Your task to perform on an android device: Open Reddit.com Image 0: 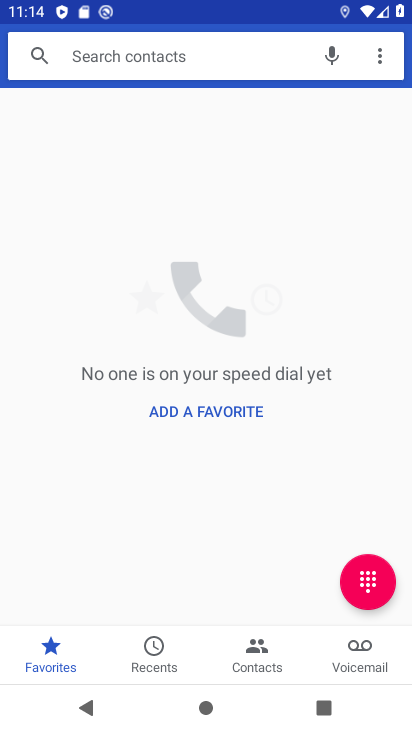
Step 0: press home button
Your task to perform on an android device: Open Reddit.com Image 1: 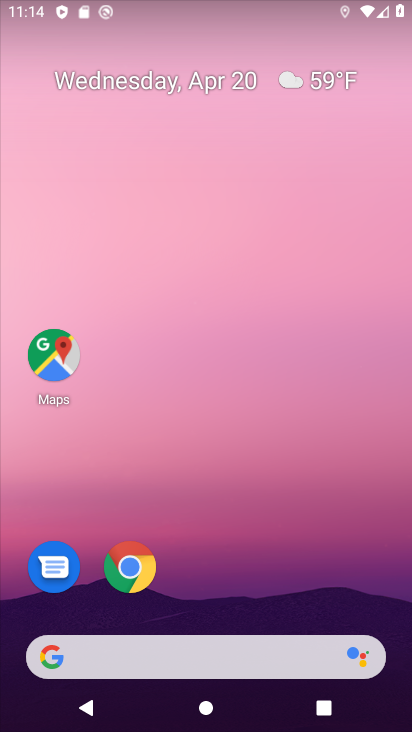
Step 1: click (136, 565)
Your task to perform on an android device: Open Reddit.com Image 2: 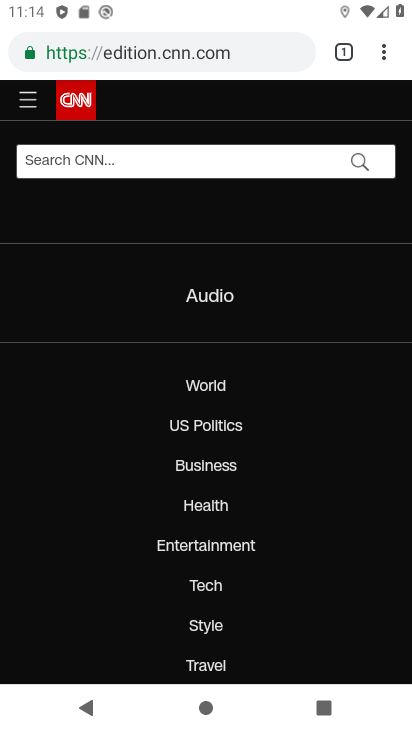
Step 2: click (212, 51)
Your task to perform on an android device: Open Reddit.com Image 3: 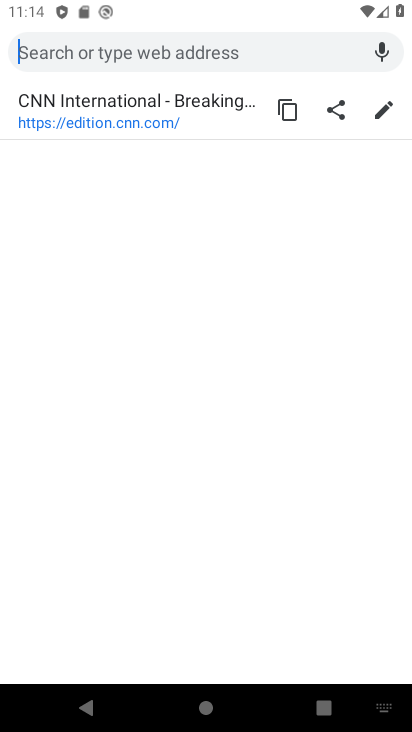
Step 3: type "Reddit.com"
Your task to perform on an android device: Open Reddit.com Image 4: 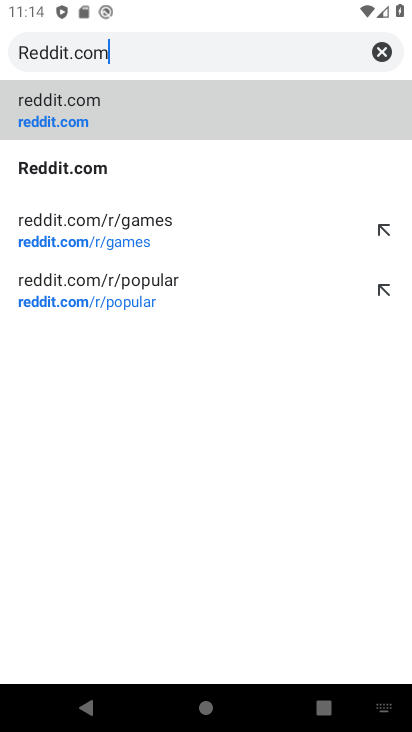
Step 4: click (57, 125)
Your task to perform on an android device: Open Reddit.com Image 5: 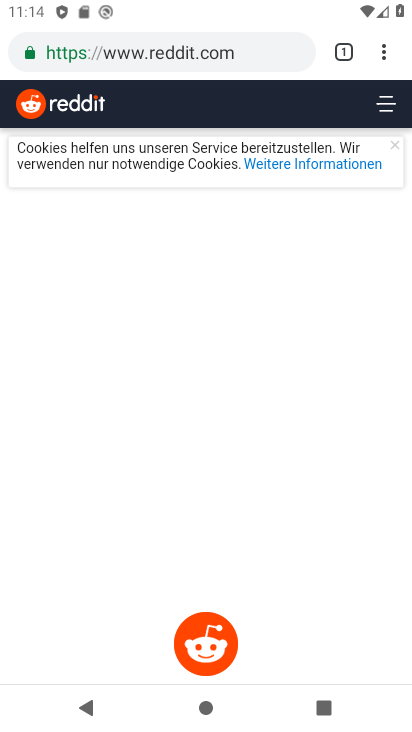
Step 5: task complete